Your task to perform on an android device: Show me popular games on the Play Store Image 0: 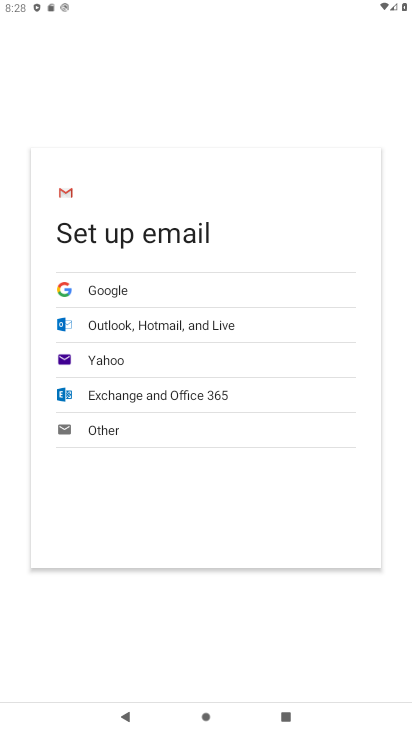
Step 0: press home button
Your task to perform on an android device: Show me popular games on the Play Store Image 1: 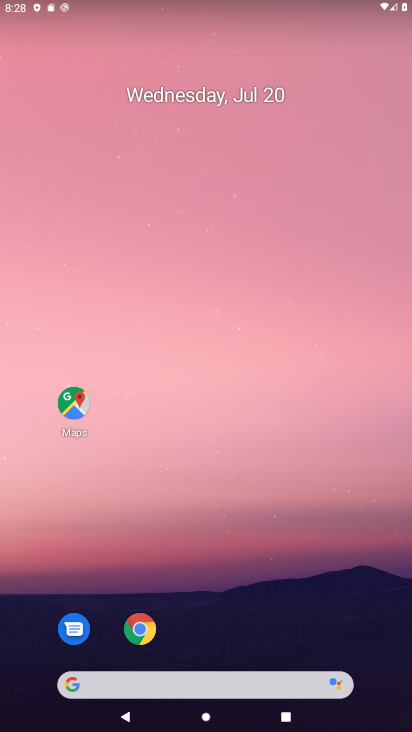
Step 1: drag from (202, 620) to (232, 46)
Your task to perform on an android device: Show me popular games on the Play Store Image 2: 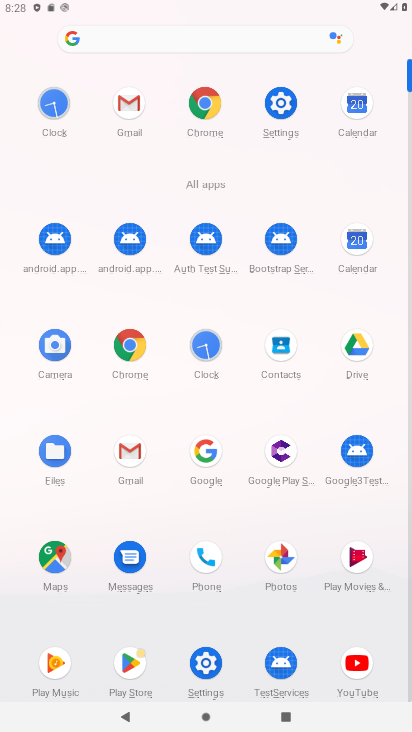
Step 2: click (123, 675)
Your task to perform on an android device: Show me popular games on the Play Store Image 3: 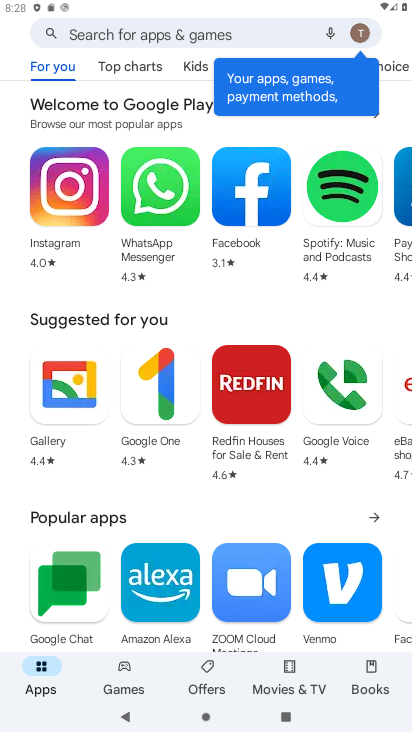
Step 3: click (118, 65)
Your task to perform on an android device: Show me popular games on the Play Store Image 4: 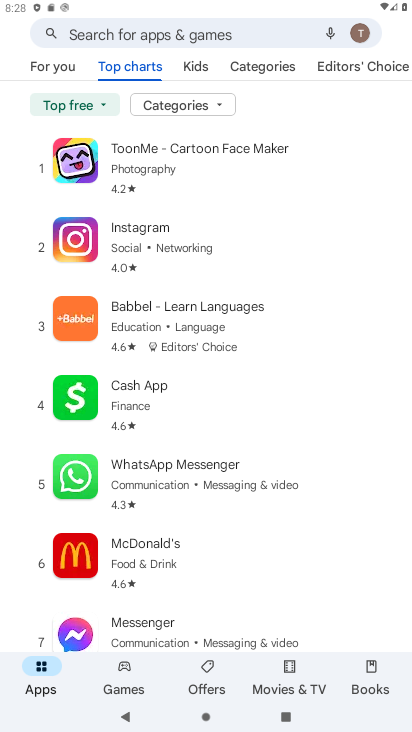
Step 4: click (125, 663)
Your task to perform on an android device: Show me popular games on the Play Store Image 5: 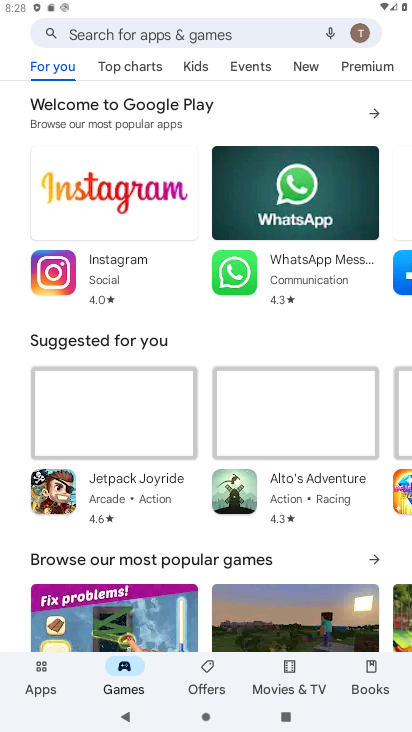
Step 5: click (139, 70)
Your task to perform on an android device: Show me popular games on the Play Store Image 6: 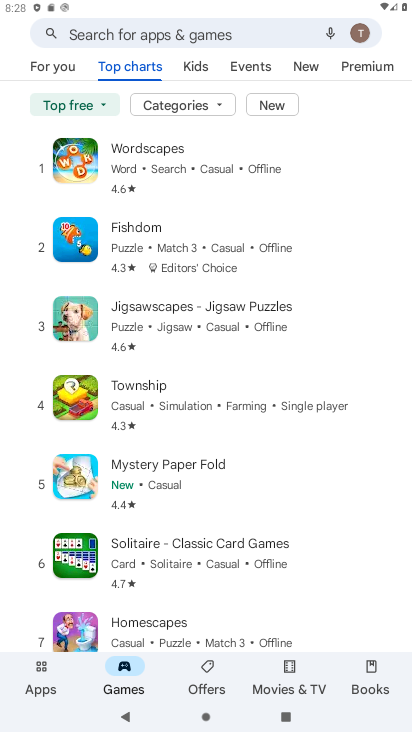
Step 6: task complete